Your task to perform on an android device: Go to settings Image 0: 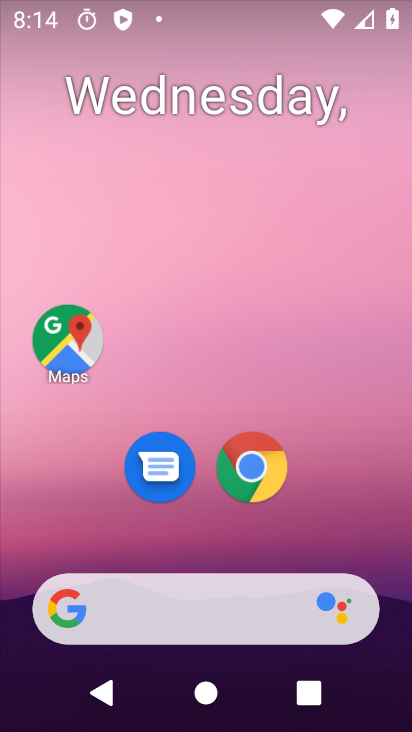
Step 0: drag from (329, 328) to (312, 193)
Your task to perform on an android device: Go to settings Image 1: 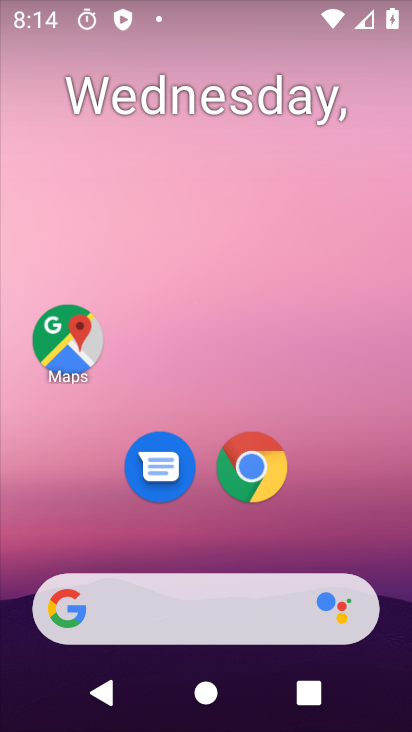
Step 1: drag from (365, 344) to (345, 104)
Your task to perform on an android device: Go to settings Image 2: 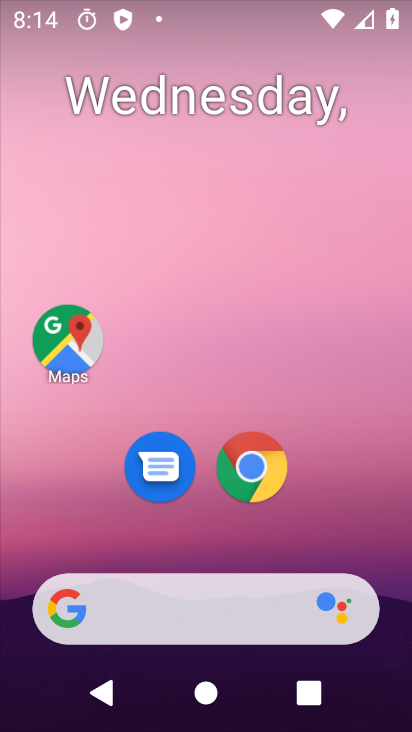
Step 2: drag from (345, 246) to (308, 78)
Your task to perform on an android device: Go to settings Image 3: 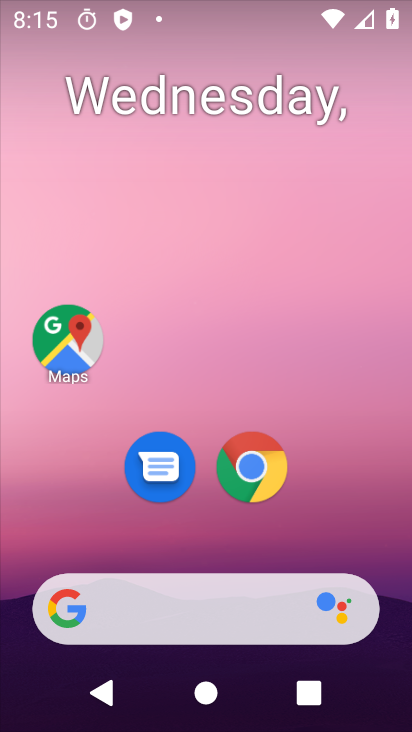
Step 3: drag from (376, 514) to (346, 142)
Your task to perform on an android device: Go to settings Image 4: 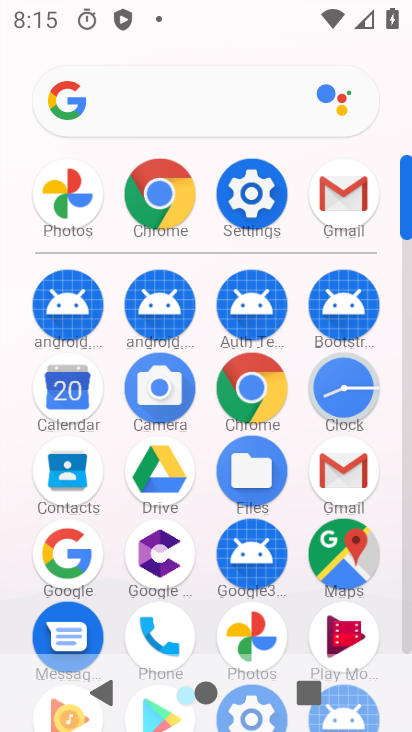
Step 4: click (253, 190)
Your task to perform on an android device: Go to settings Image 5: 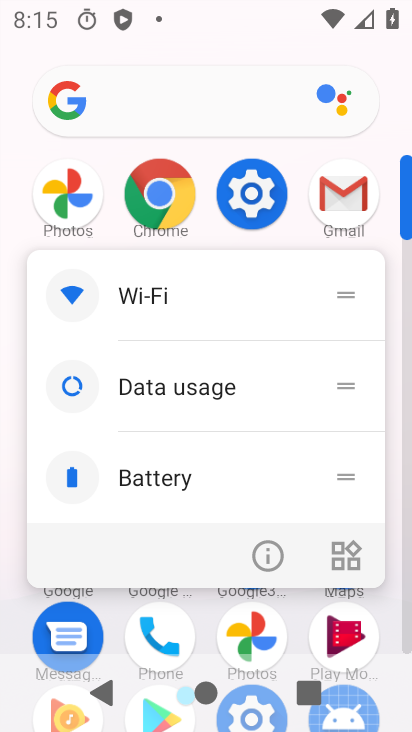
Step 5: click (252, 184)
Your task to perform on an android device: Go to settings Image 6: 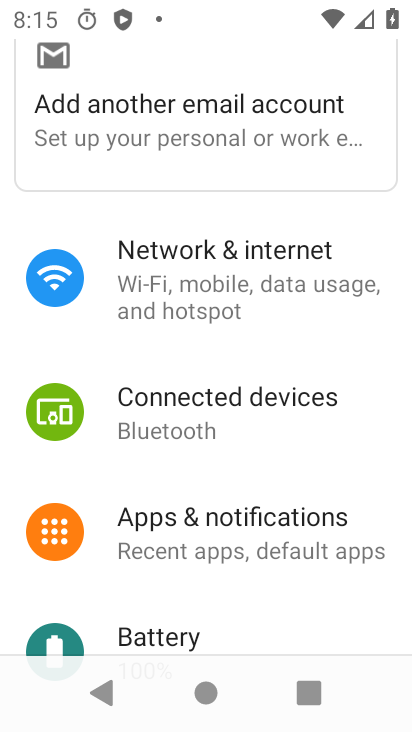
Step 6: task complete